Your task to perform on an android device: Go to Amazon Image 0: 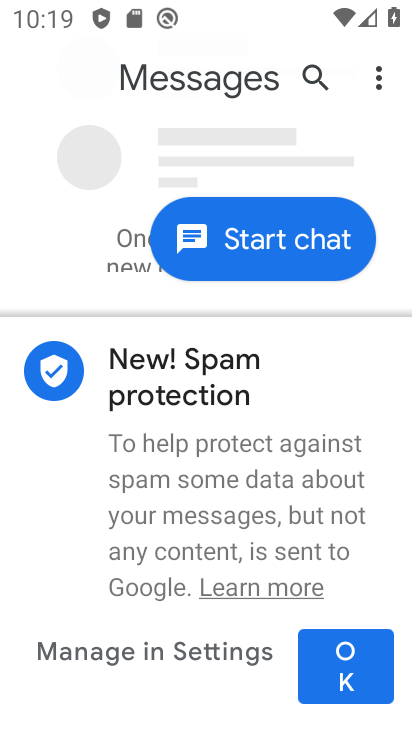
Step 0: press home button
Your task to perform on an android device: Go to Amazon Image 1: 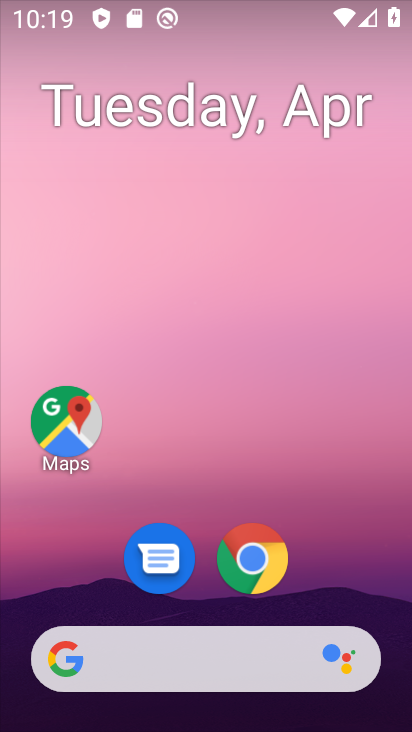
Step 1: click (250, 578)
Your task to perform on an android device: Go to Amazon Image 2: 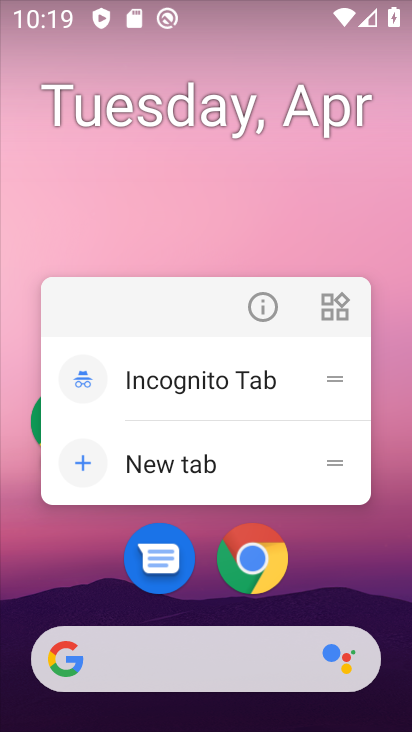
Step 2: click (254, 557)
Your task to perform on an android device: Go to Amazon Image 3: 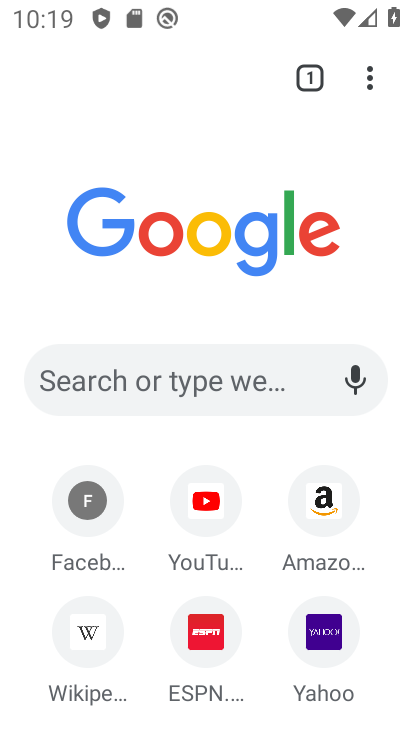
Step 3: click (310, 516)
Your task to perform on an android device: Go to Amazon Image 4: 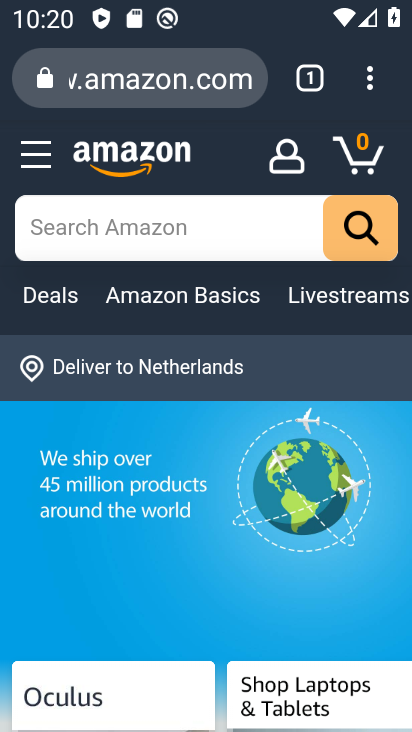
Step 4: task complete